Your task to perform on an android device: What is the recent news? Image 0: 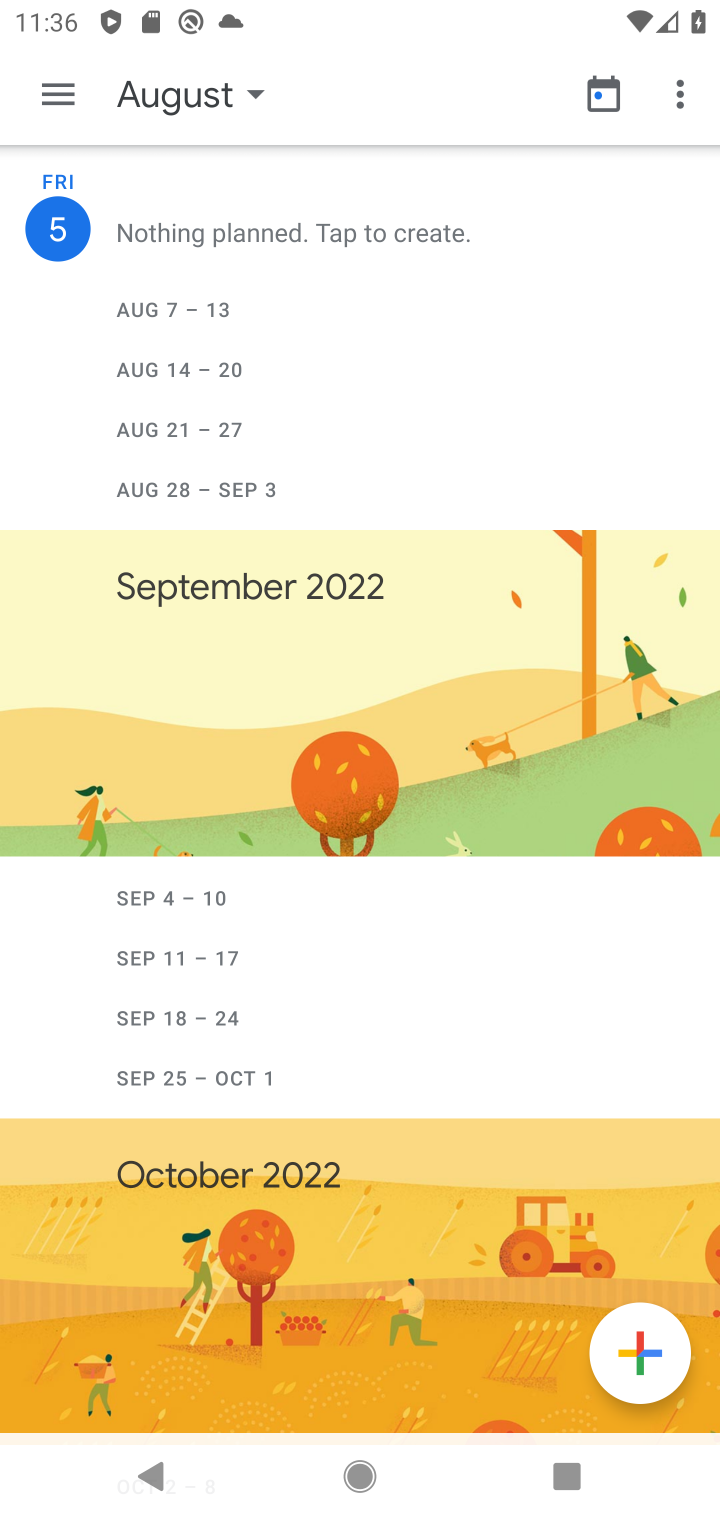
Step 0: press home button
Your task to perform on an android device: What is the recent news? Image 1: 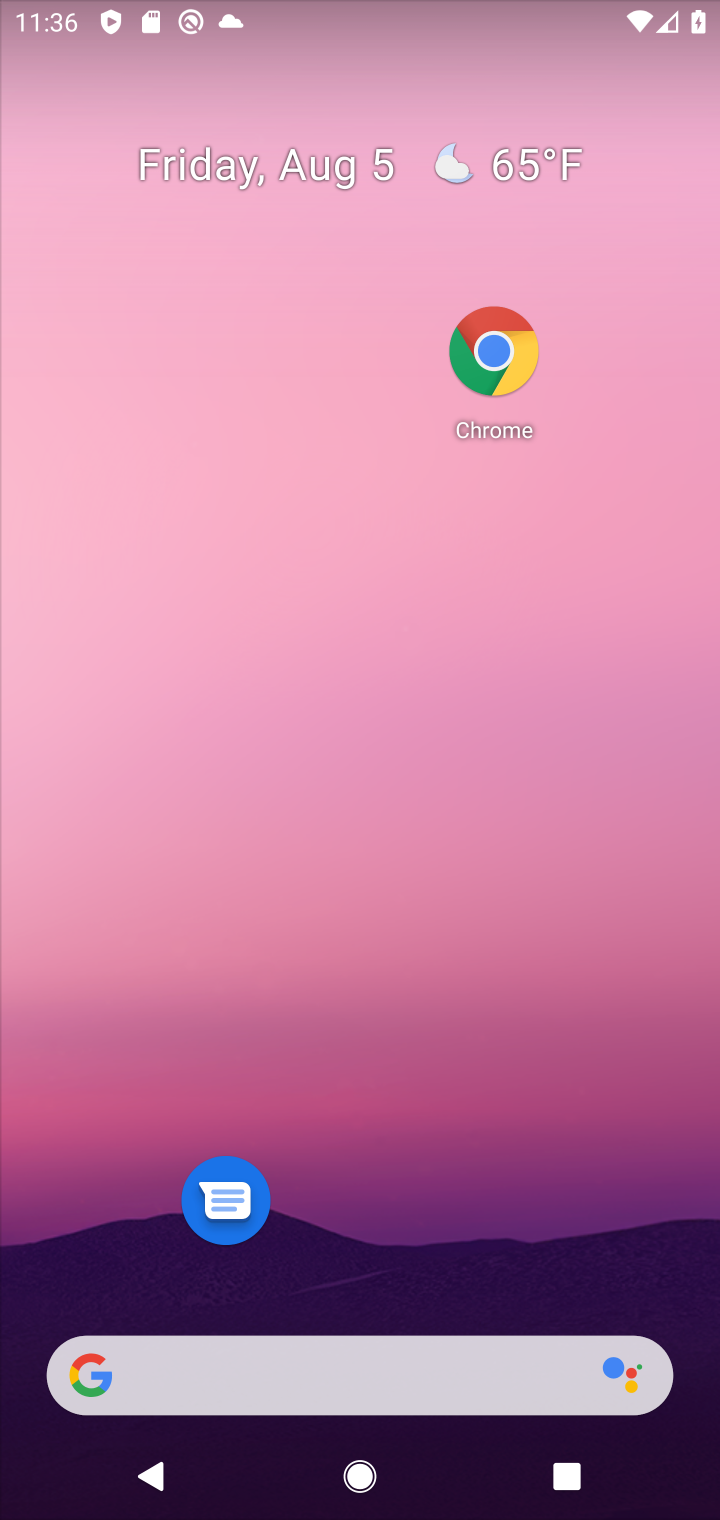
Step 1: drag from (375, 1249) to (568, 335)
Your task to perform on an android device: What is the recent news? Image 2: 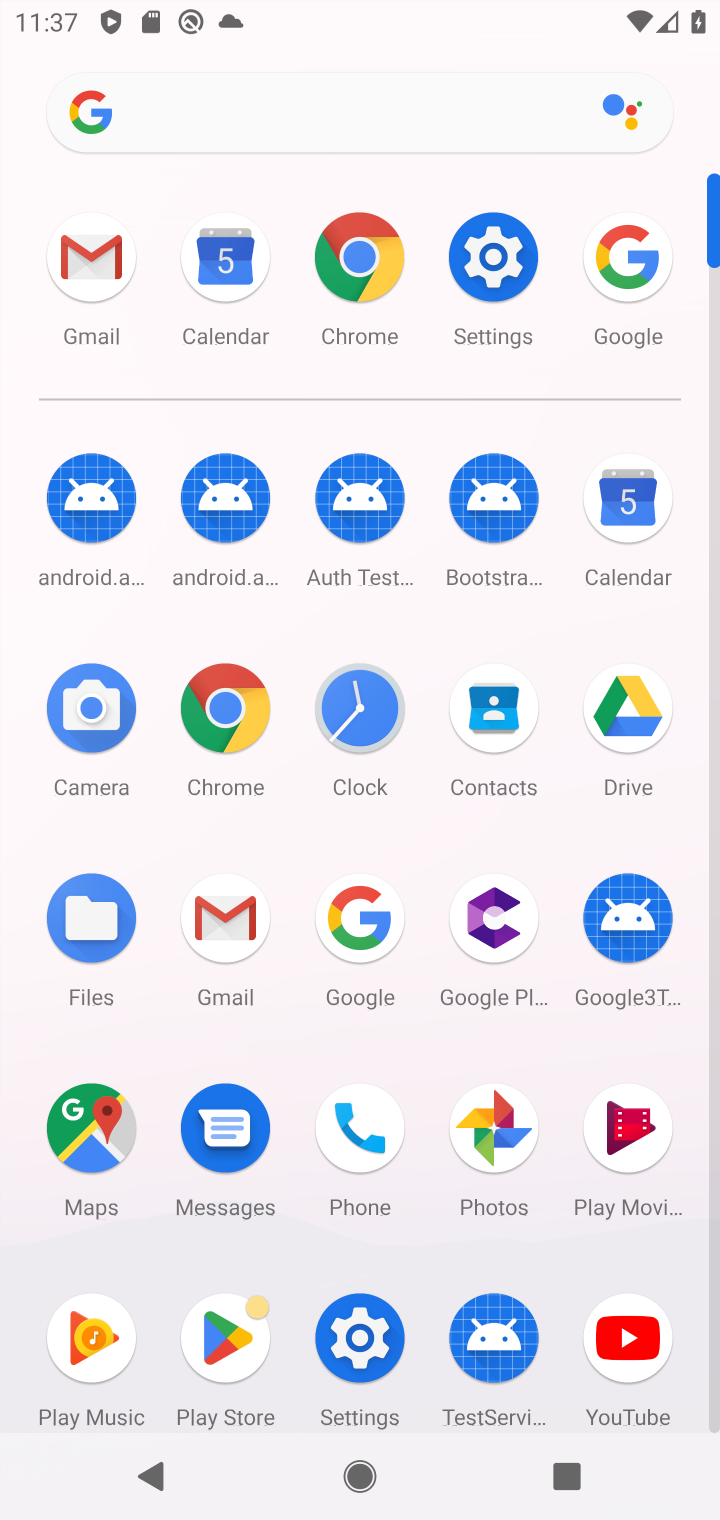
Step 2: click (375, 957)
Your task to perform on an android device: What is the recent news? Image 3: 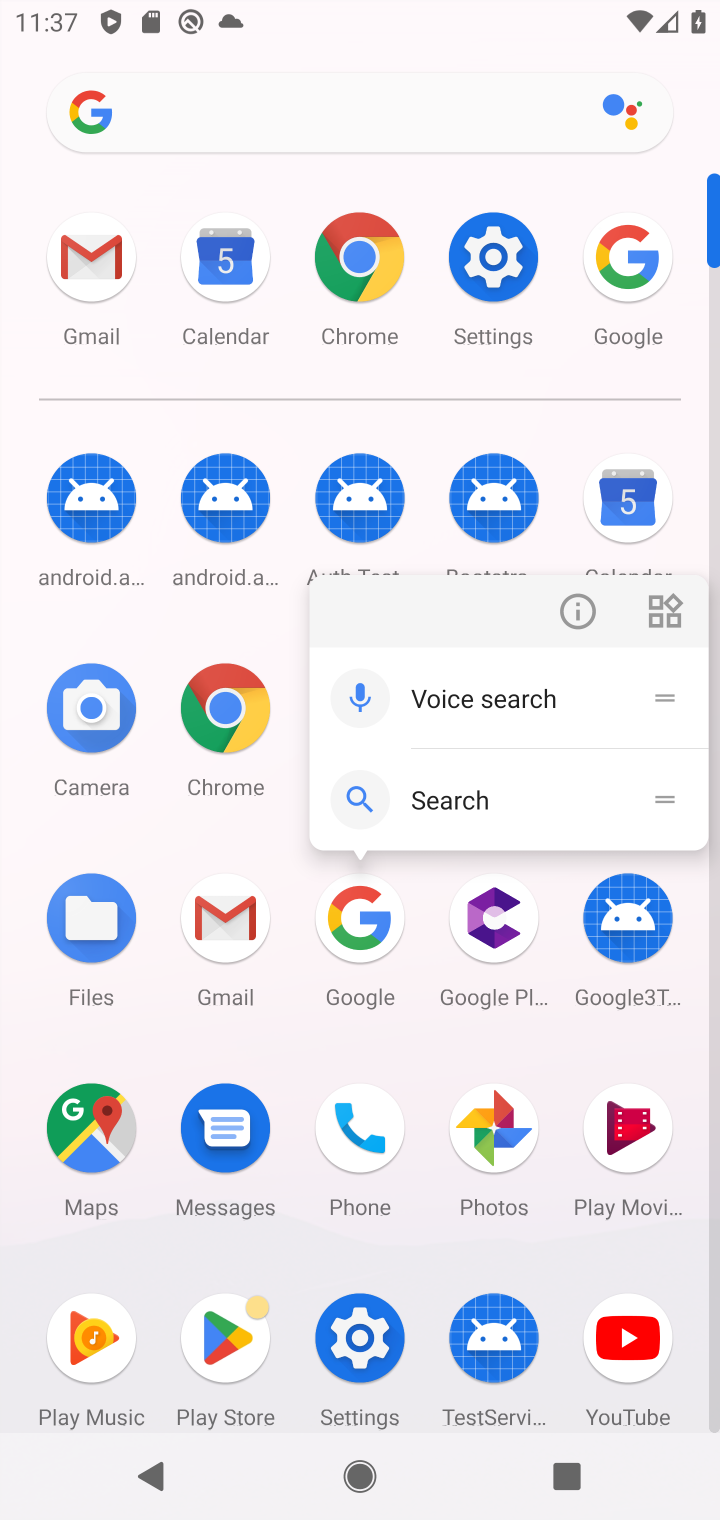
Step 3: click (370, 977)
Your task to perform on an android device: What is the recent news? Image 4: 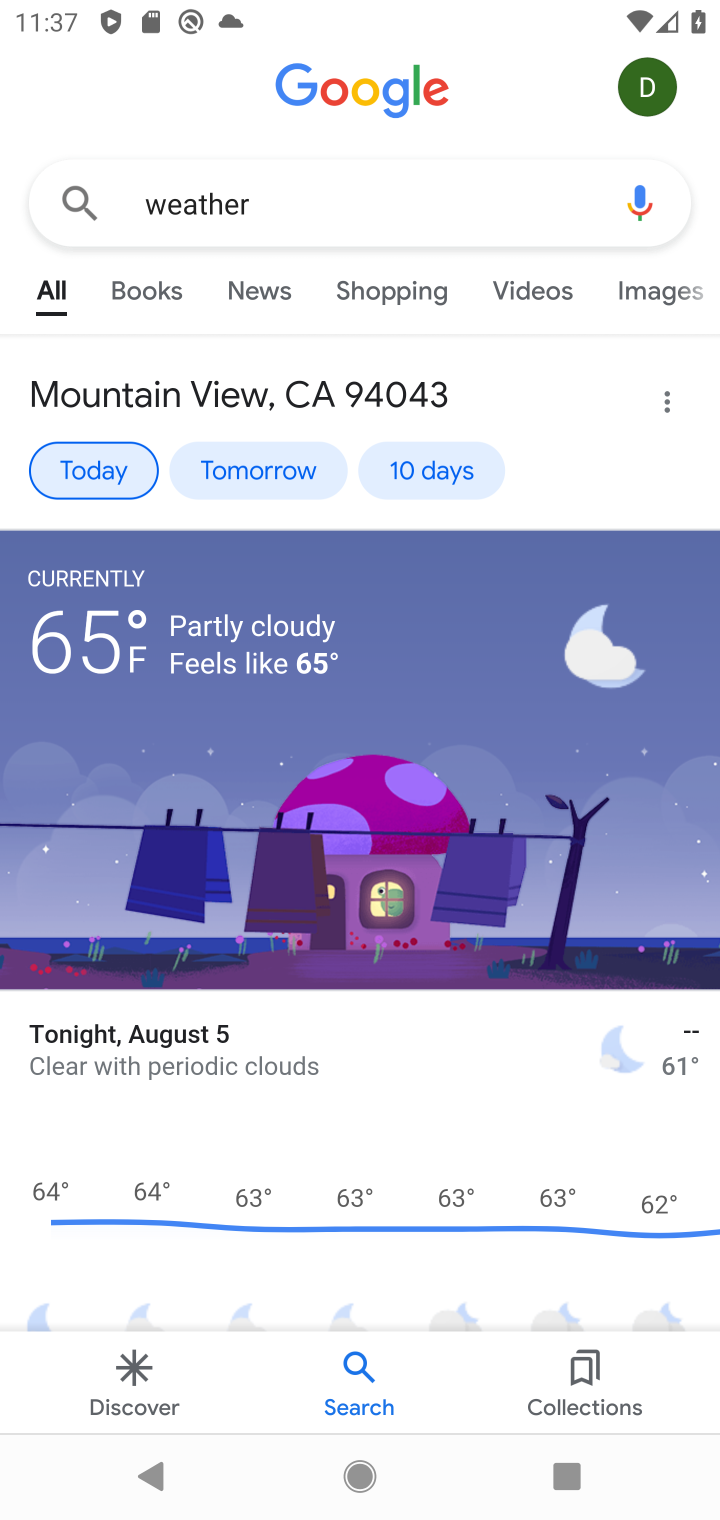
Step 4: click (380, 205)
Your task to perform on an android device: What is the recent news? Image 5: 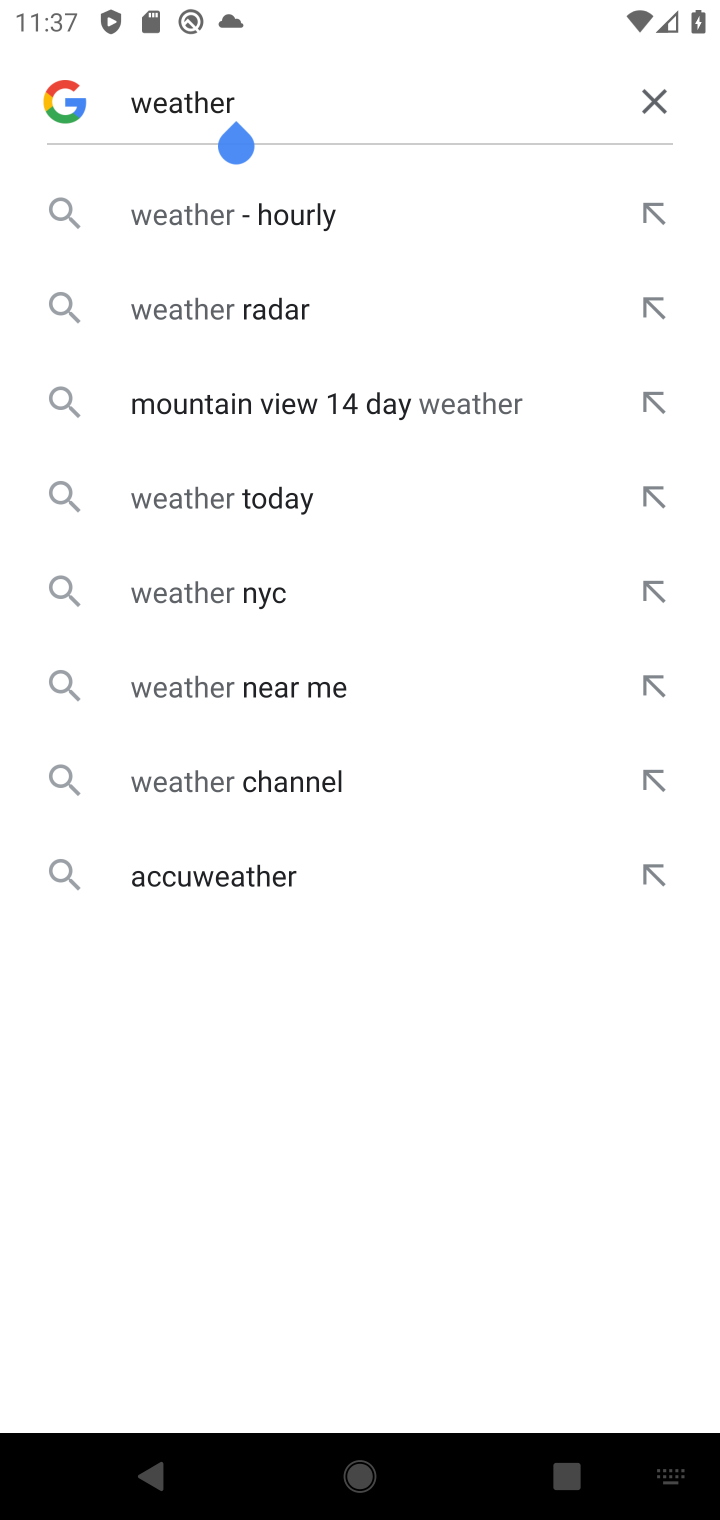
Step 5: click (654, 109)
Your task to perform on an android device: What is the recent news? Image 6: 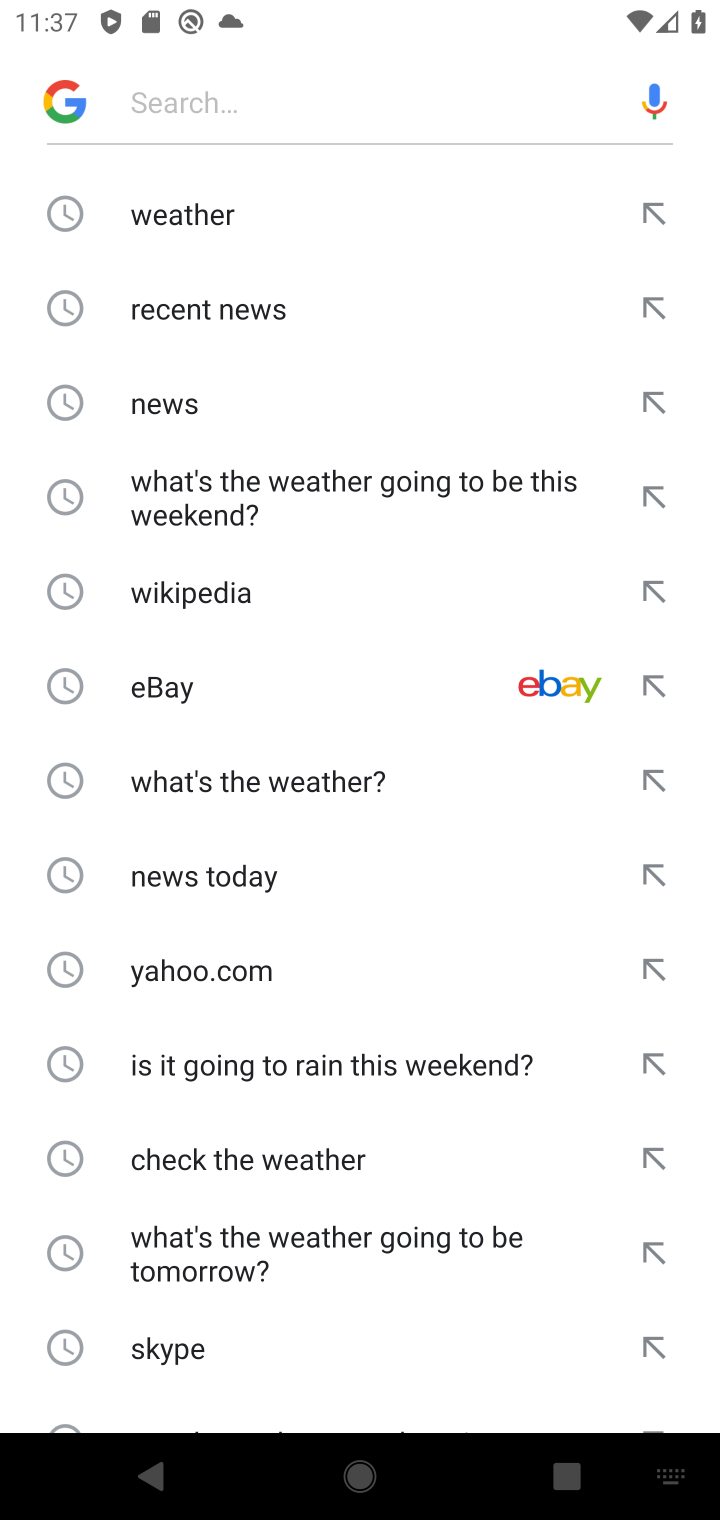
Step 6: click (275, 413)
Your task to perform on an android device: What is the recent news? Image 7: 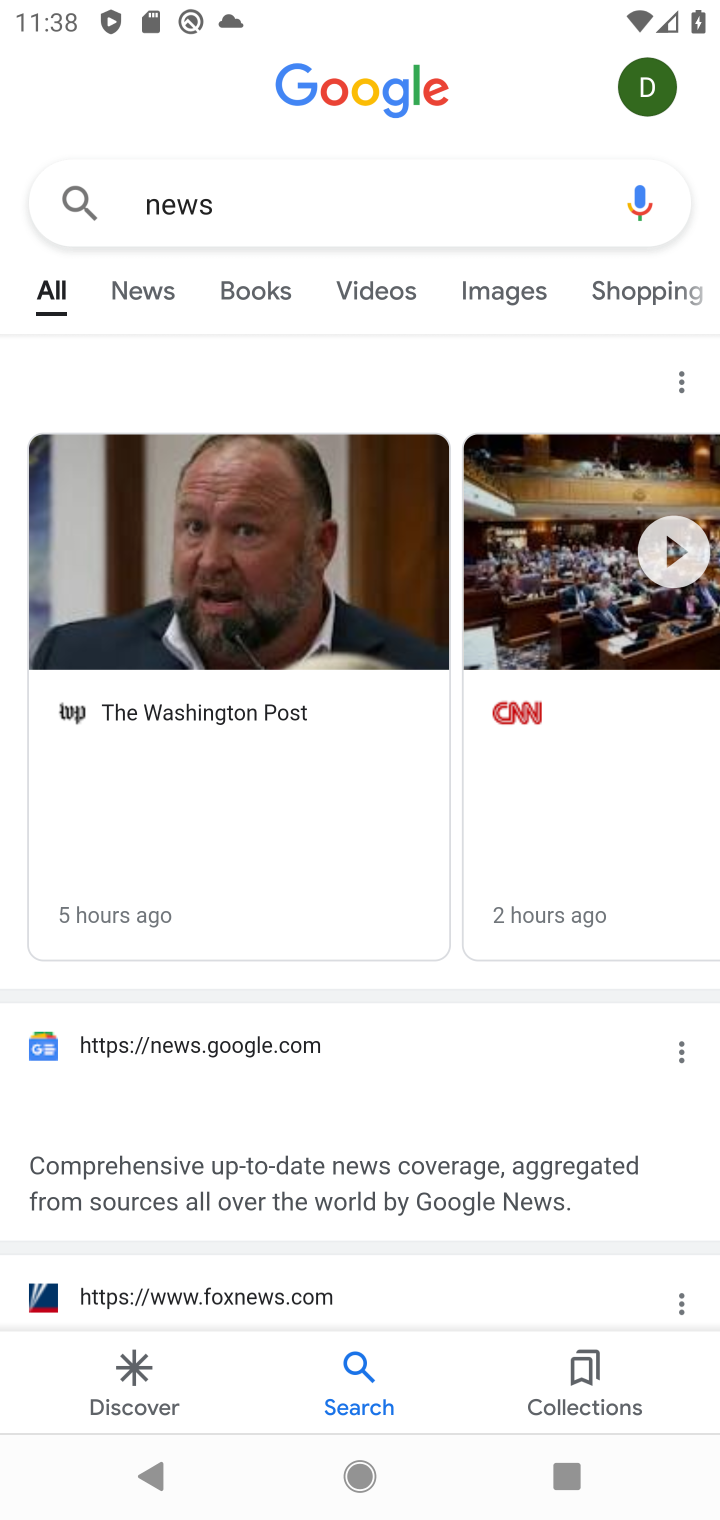
Step 7: click (149, 304)
Your task to perform on an android device: What is the recent news? Image 8: 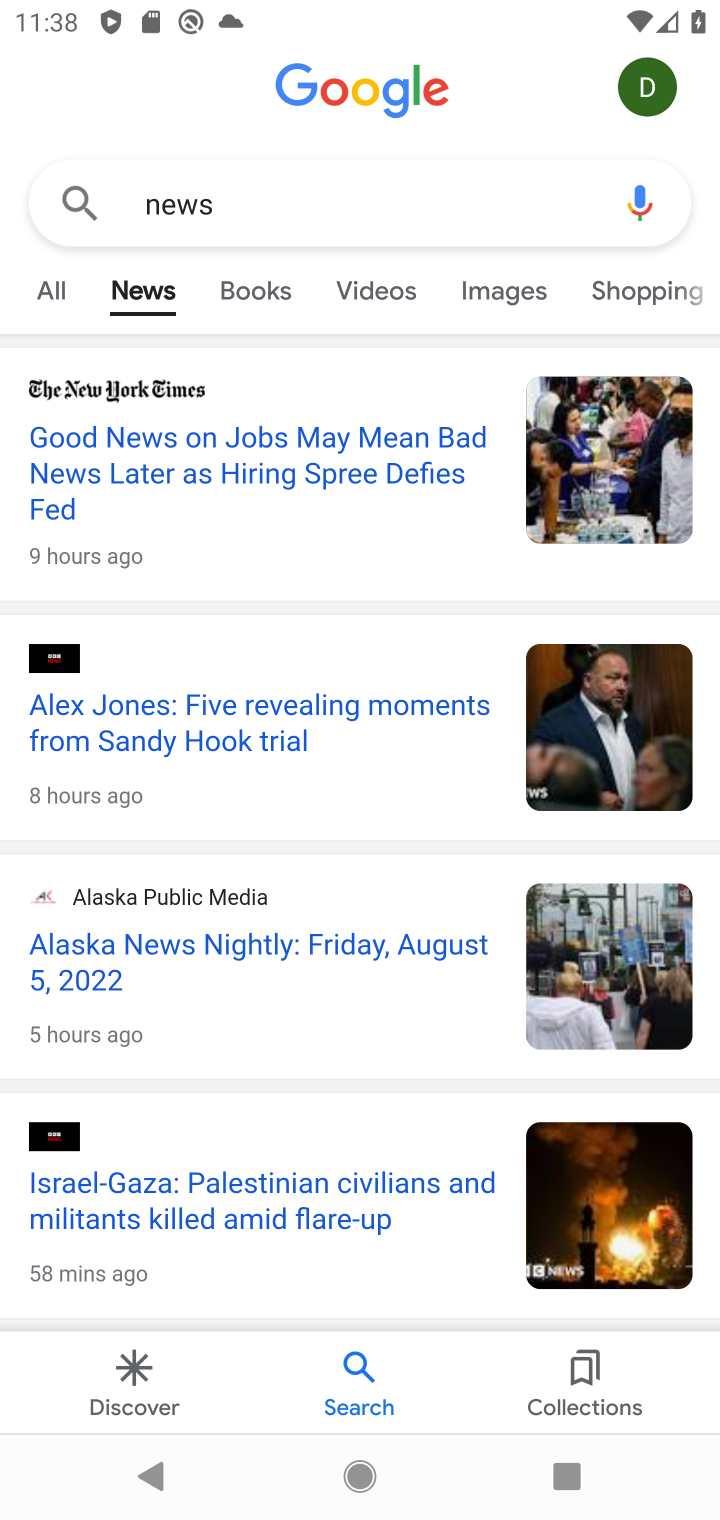
Step 8: task complete